Your task to perform on an android device: turn off priority inbox in the gmail app Image 0: 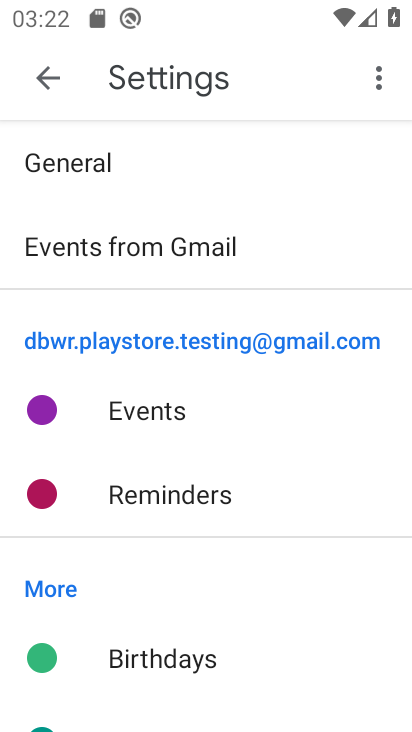
Step 0: press home button
Your task to perform on an android device: turn off priority inbox in the gmail app Image 1: 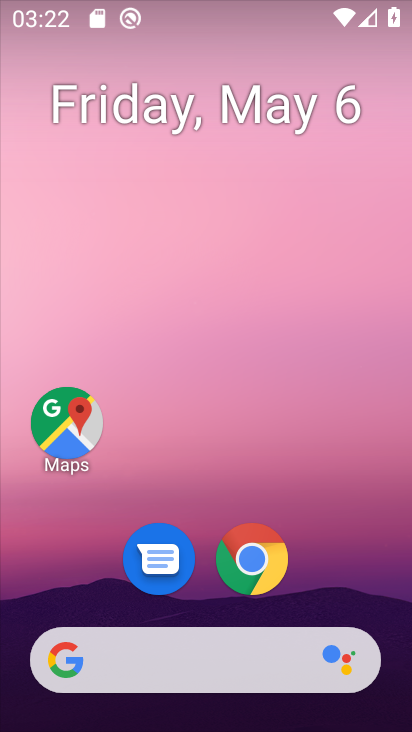
Step 1: drag from (278, 622) to (341, 7)
Your task to perform on an android device: turn off priority inbox in the gmail app Image 2: 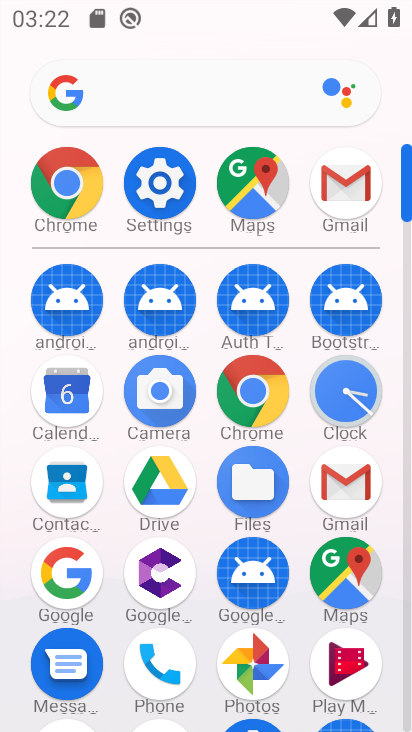
Step 2: click (367, 474)
Your task to perform on an android device: turn off priority inbox in the gmail app Image 3: 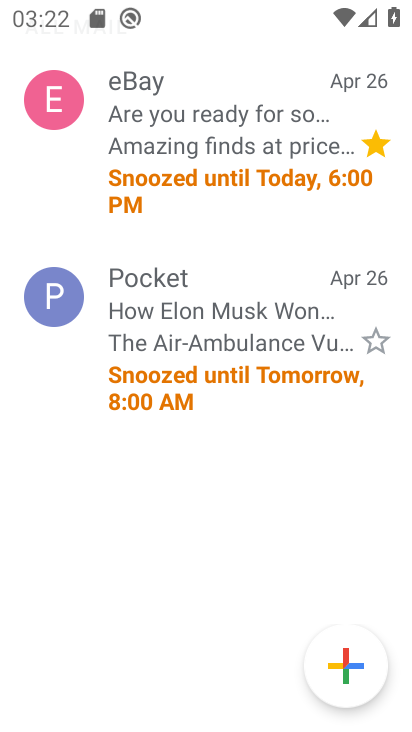
Step 3: drag from (215, 135) to (197, 606)
Your task to perform on an android device: turn off priority inbox in the gmail app Image 4: 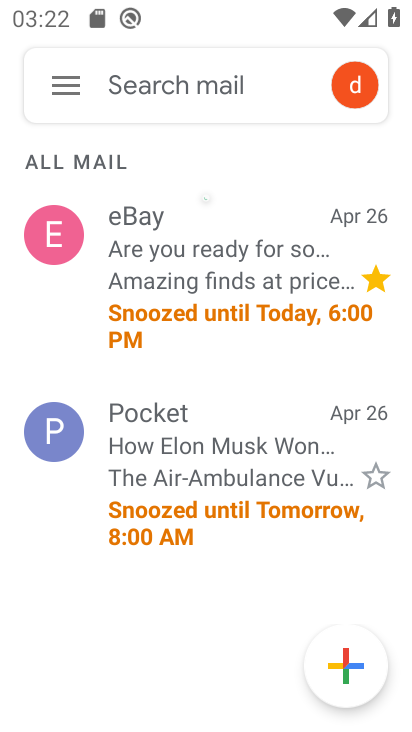
Step 4: click (50, 80)
Your task to perform on an android device: turn off priority inbox in the gmail app Image 5: 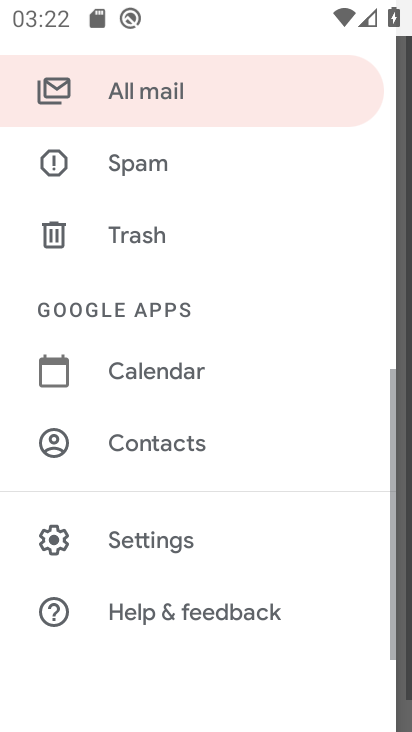
Step 5: click (210, 542)
Your task to perform on an android device: turn off priority inbox in the gmail app Image 6: 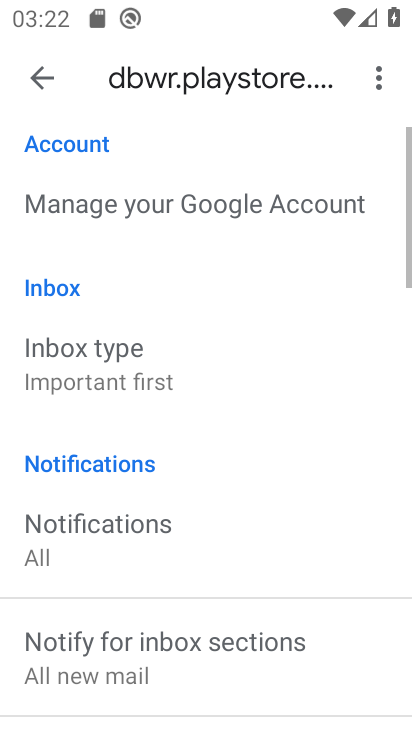
Step 6: drag from (210, 542) to (124, 727)
Your task to perform on an android device: turn off priority inbox in the gmail app Image 7: 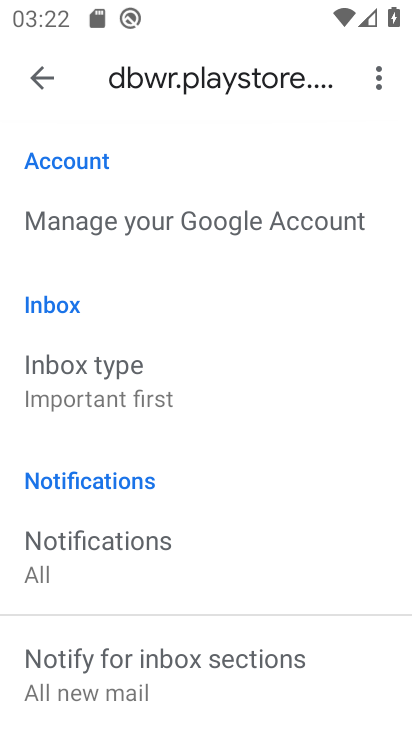
Step 7: drag from (197, 228) to (230, 707)
Your task to perform on an android device: turn off priority inbox in the gmail app Image 8: 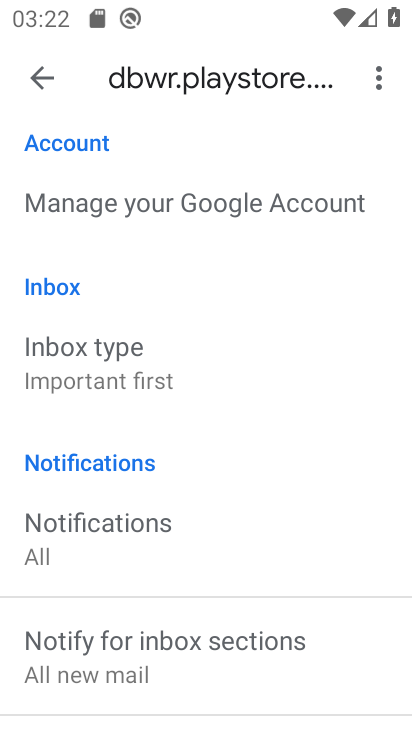
Step 8: click (158, 378)
Your task to perform on an android device: turn off priority inbox in the gmail app Image 9: 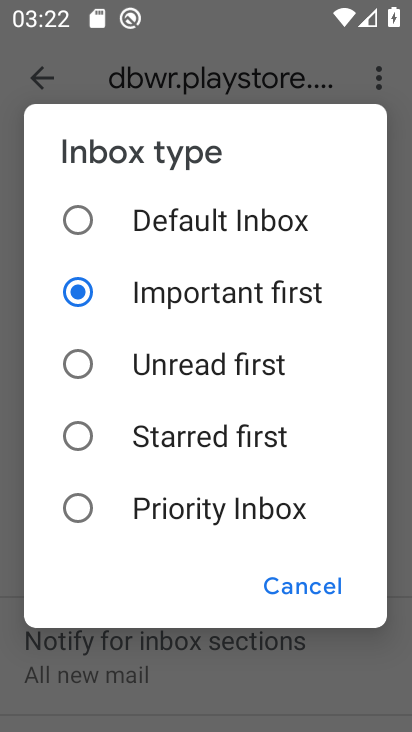
Step 9: task complete